Your task to perform on an android device: toggle show notifications on the lock screen Image 0: 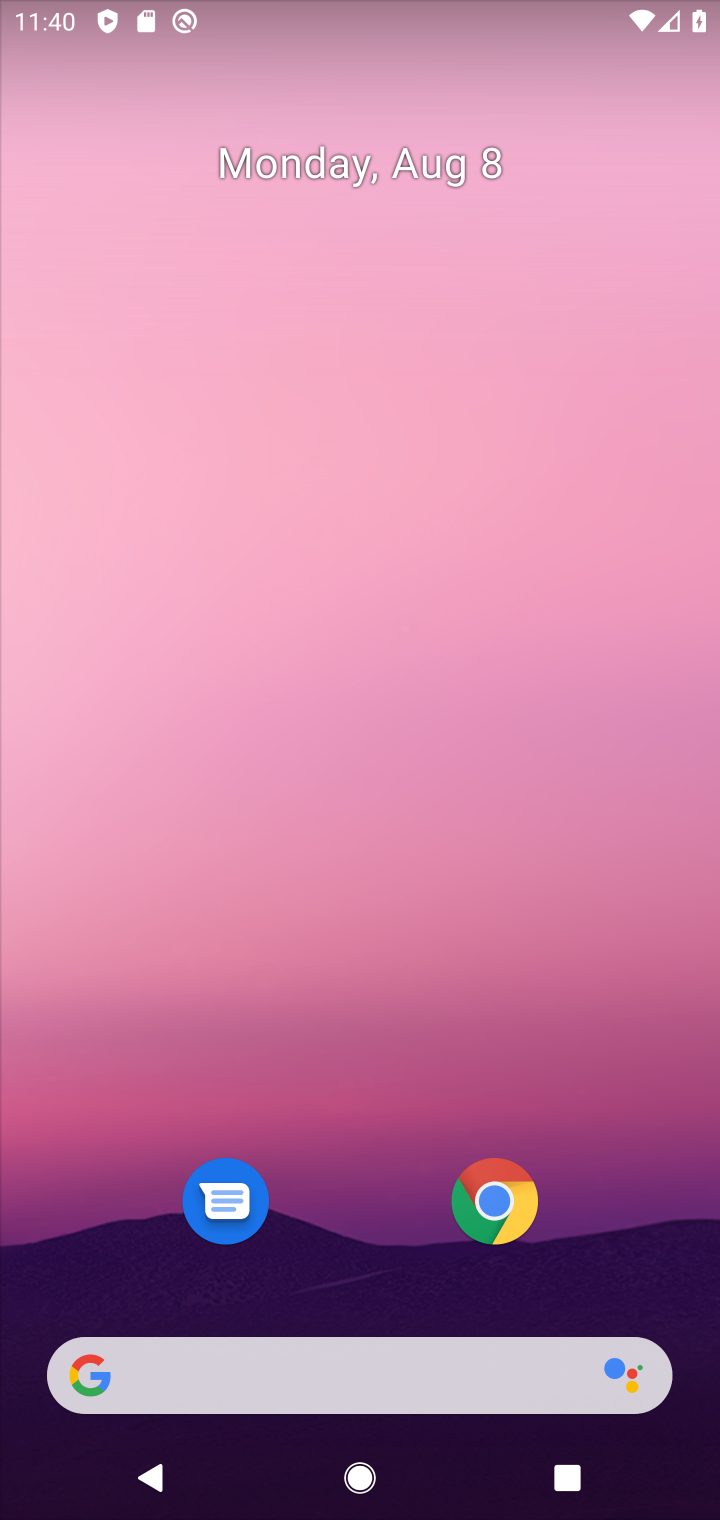
Step 0: drag from (293, 1307) to (99, 236)
Your task to perform on an android device: toggle show notifications on the lock screen Image 1: 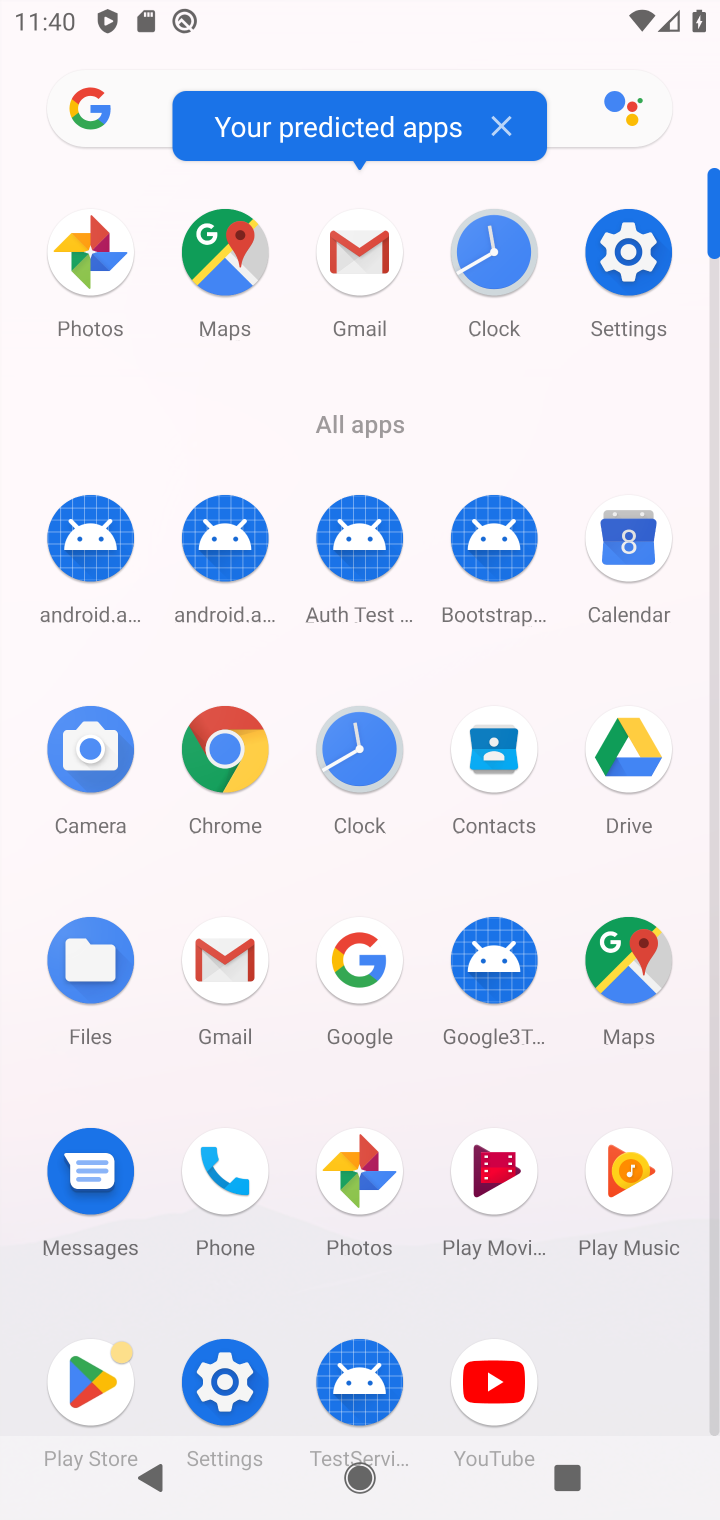
Step 1: click (590, 320)
Your task to perform on an android device: toggle show notifications on the lock screen Image 2: 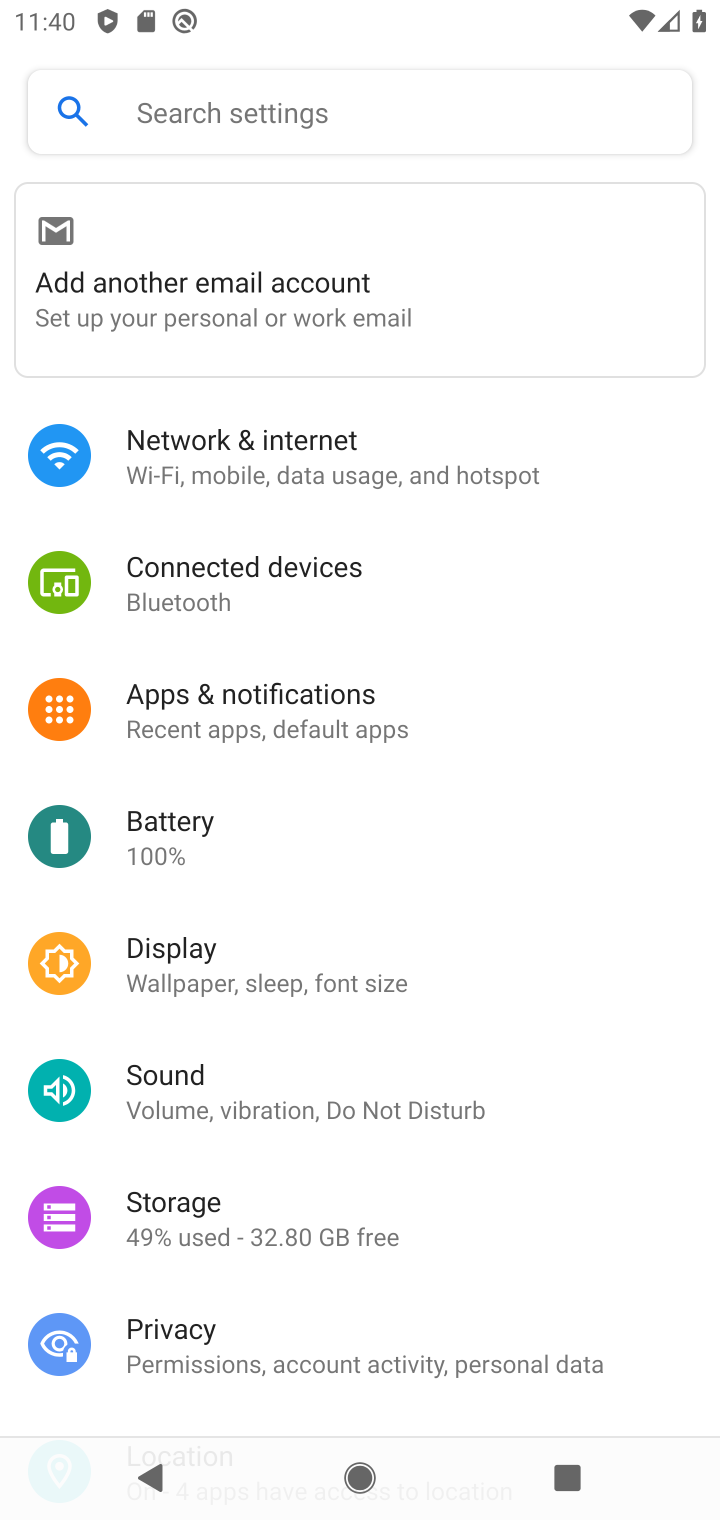
Step 2: click (248, 719)
Your task to perform on an android device: toggle show notifications on the lock screen Image 3: 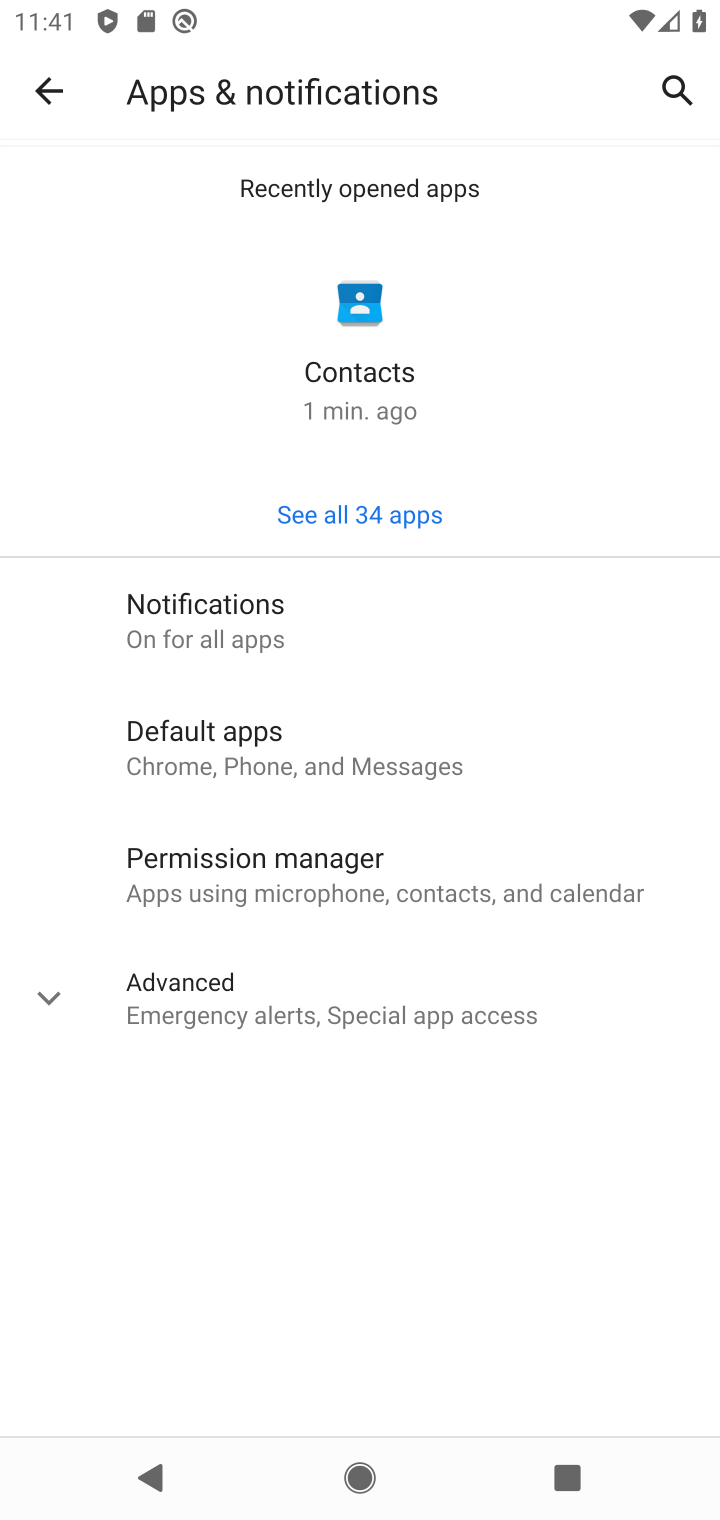
Step 3: click (290, 645)
Your task to perform on an android device: toggle show notifications on the lock screen Image 4: 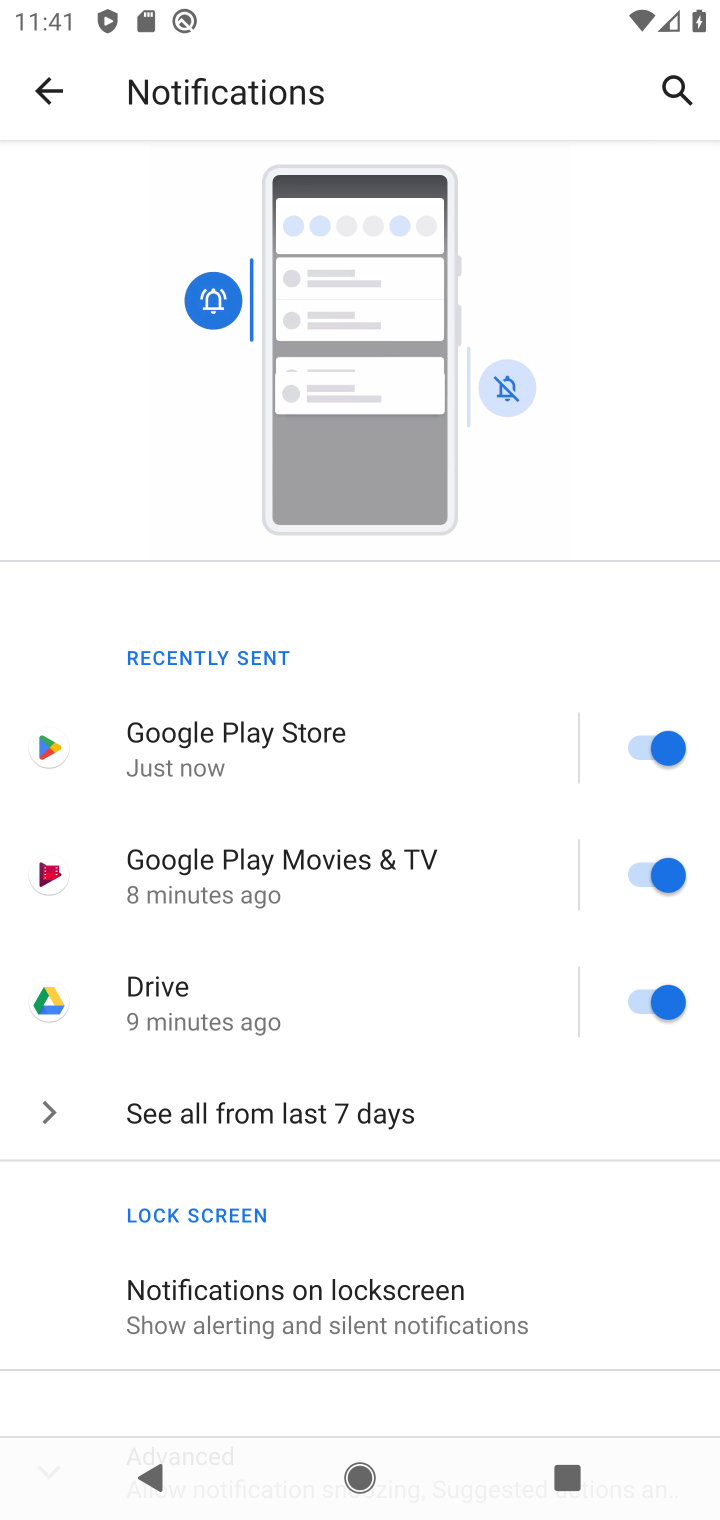
Step 4: click (329, 1309)
Your task to perform on an android device: toggle show notifications on the lock screen Image 5: 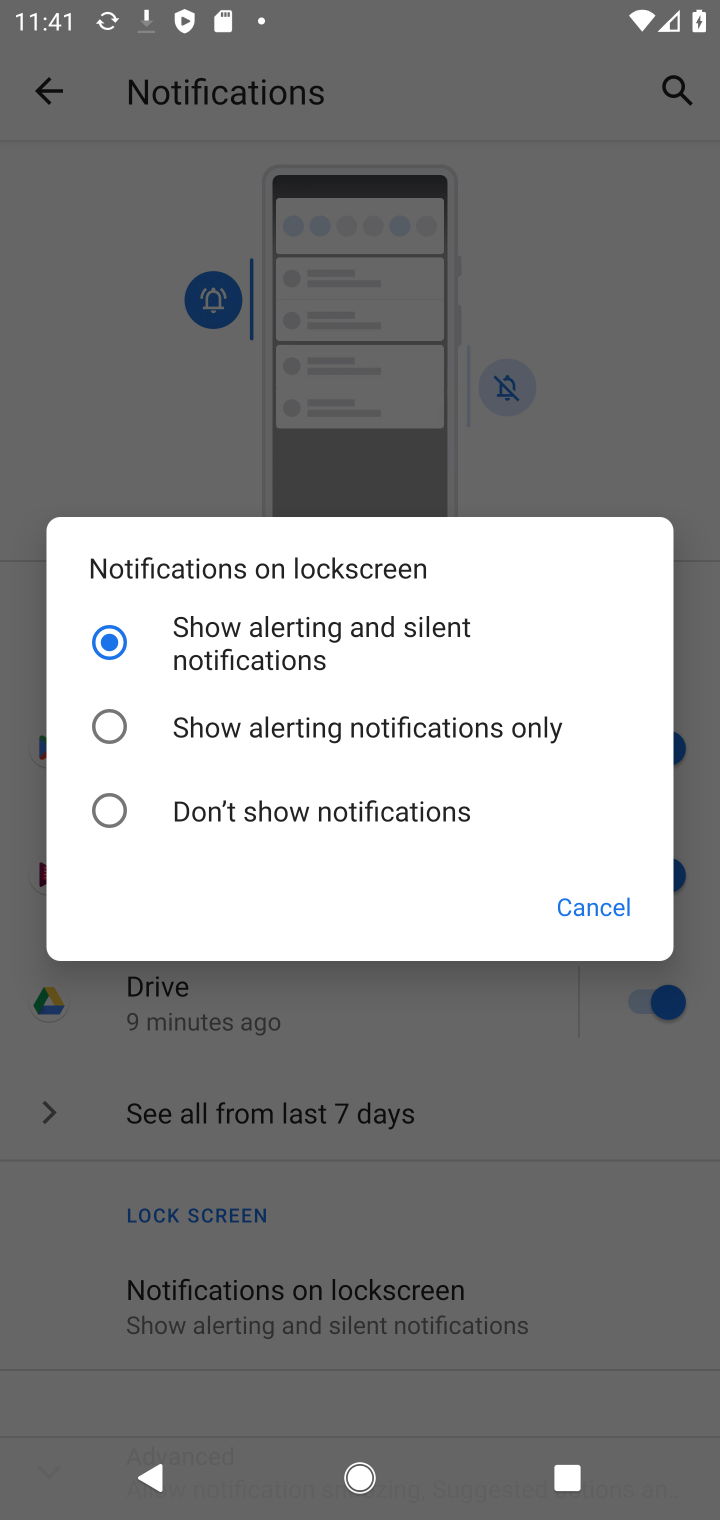
Step 5: click (267, 647)
Your task to perform on an android device: toggle show notifications on the lock screen Image 6: 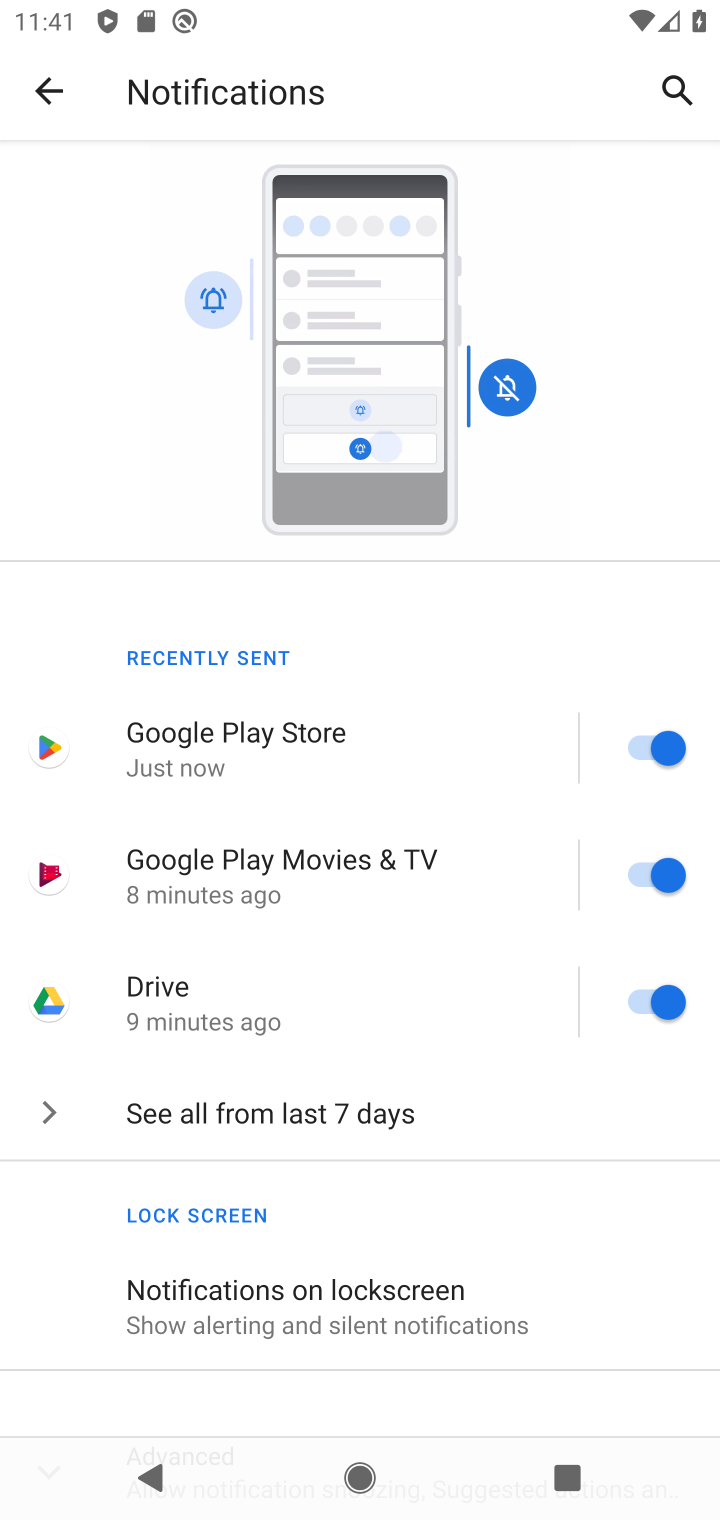
Step 6: task complete